Your task to perform on an android device: change the clock display to digital Image 0: 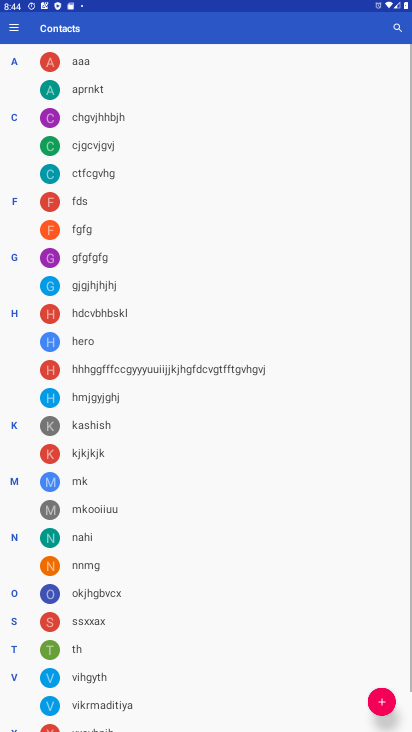
Step 0: press home button
Your task to perform on an android device: change the clock display to digital Image 1: 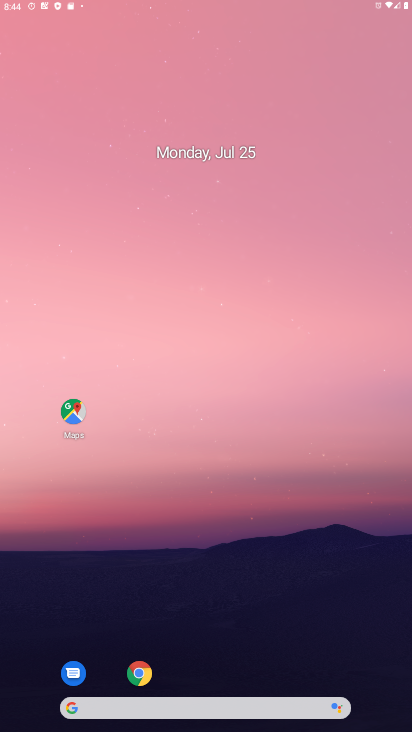
Step 1: drag from (367, 614) to (14, 250)
Your task to perform on an android device: change the clock display to digital Image 2: 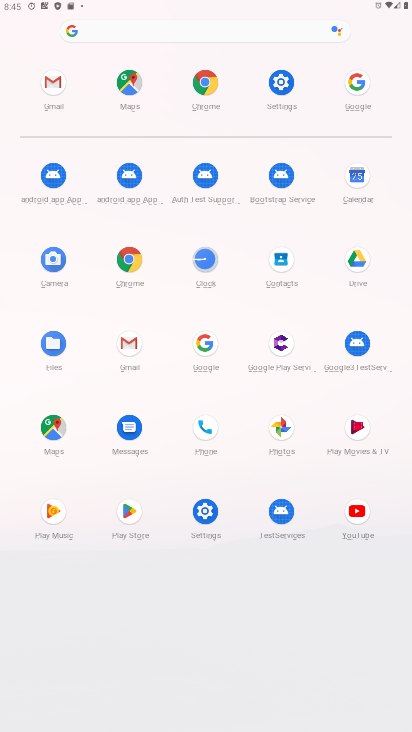
Step 2: click (208, 254)
Your task to perform on an android device: change the clock display to digital Image 3: 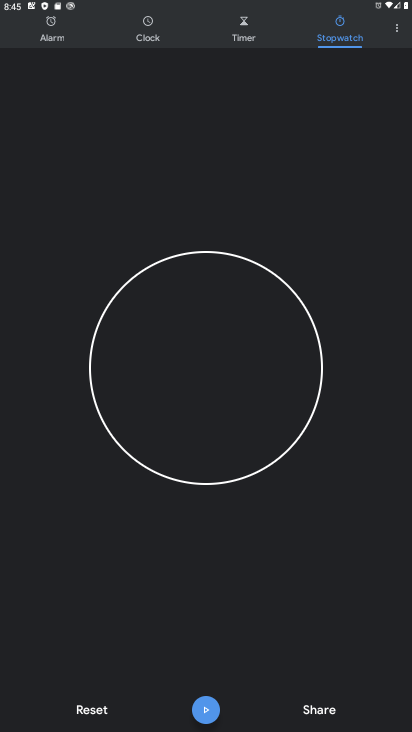
Step 3: click (396, 30)
Your task to perform on an android device: change the clock display to digital Image 4: 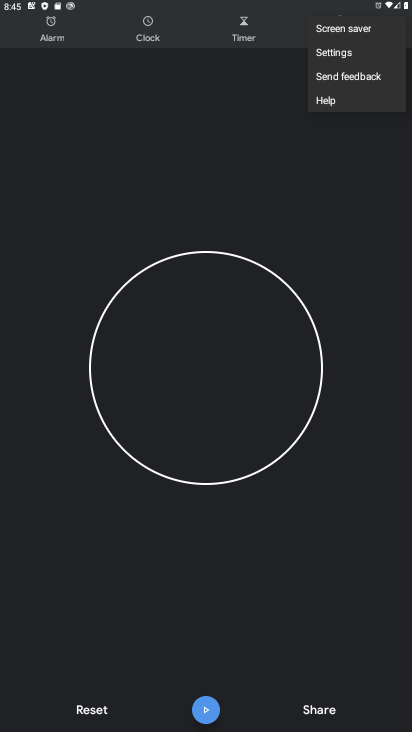
Step 4: click (354, 59)
Your task to perform on an android device: change the clock display to digital Image 5: 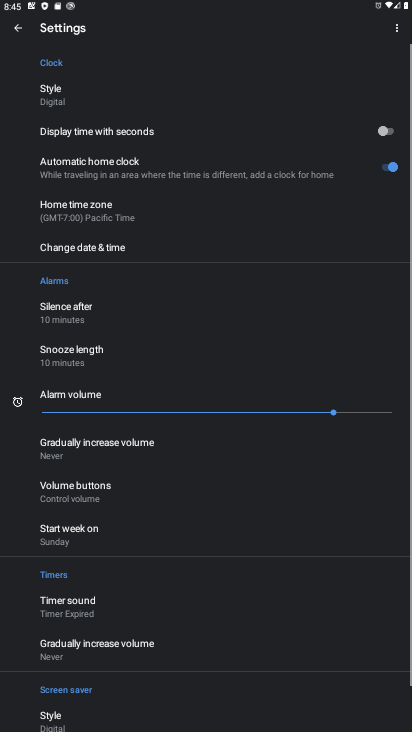
Step 5: click (61, 98)
Your task to perform on an android device: change the clock display to digital Image 6: 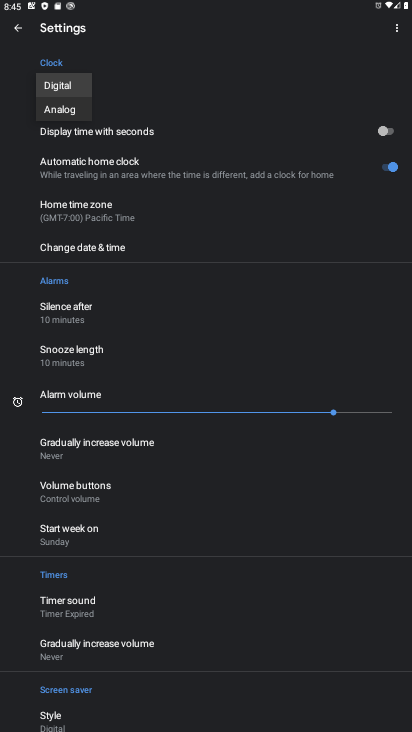
Step 6: click (67, 84)
Your task to perform on an android device: change the clock display to digital Image 7: 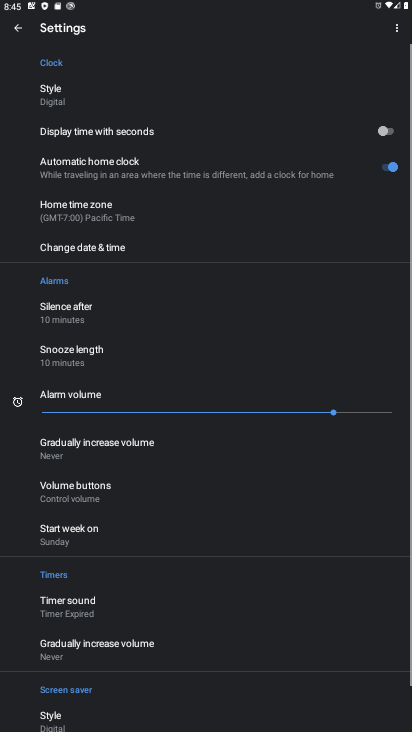
Step 7: task complete